Your task to perform on an android device: find which apps use the phone's location Image 0: 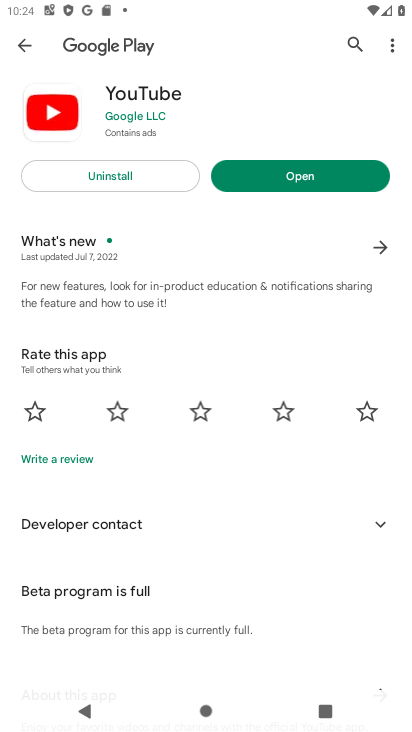
Step 0: press home button
Your task to perform on an android device: find which apps use the phone's location Image 1: 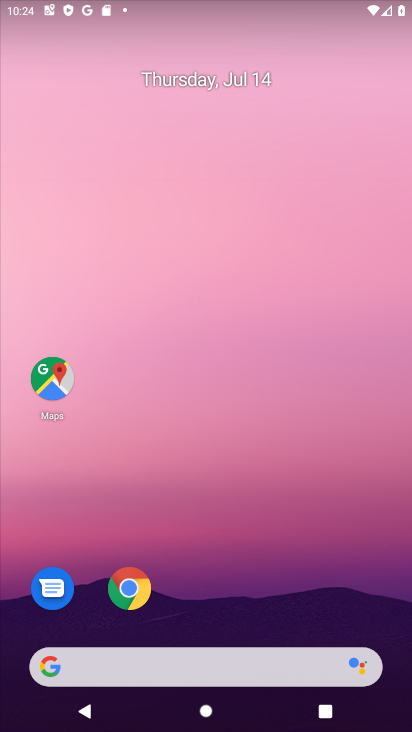
Step 1: drag from (123, 670) to (197, 92)
Your task to perform on an android device: find which apps use the phone's location Image 2: 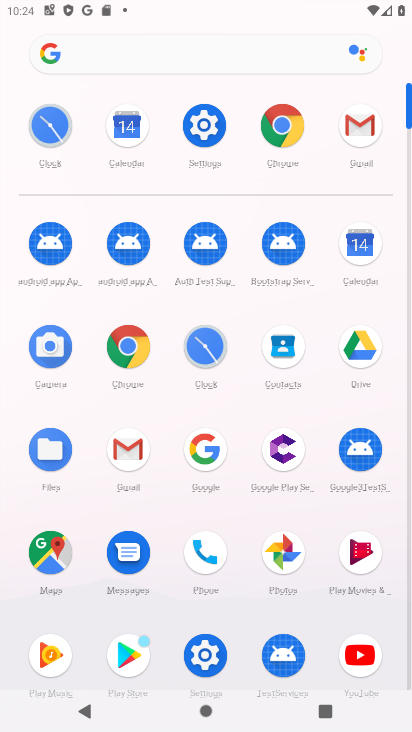
Step 2: click (209, 131)
Your task to perform on an android device: find which apps use the phone's location Image 3: 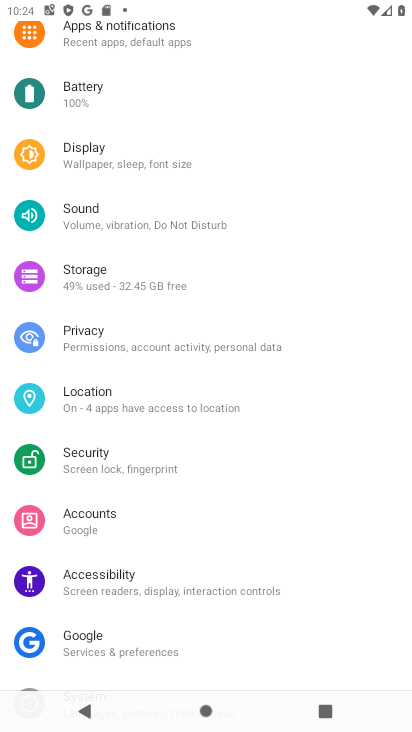
Step 3: click (88, 398)
Your task to perform on an android device: find which apps use the phone's location Image 4: 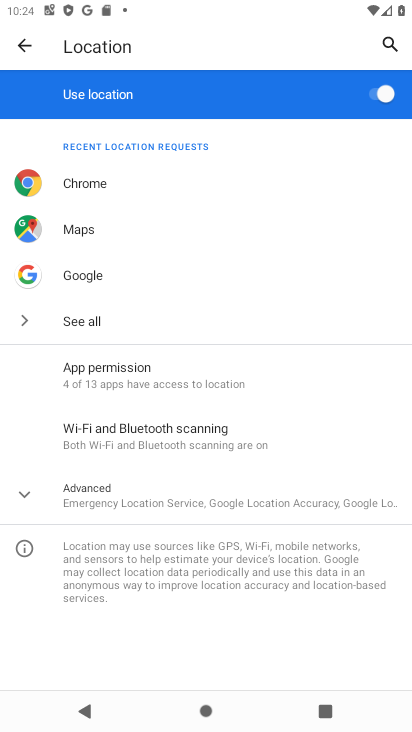
Step 4: click (114, 377)
Your task to perform on an android device: find which apps use the phone's location Image 5: 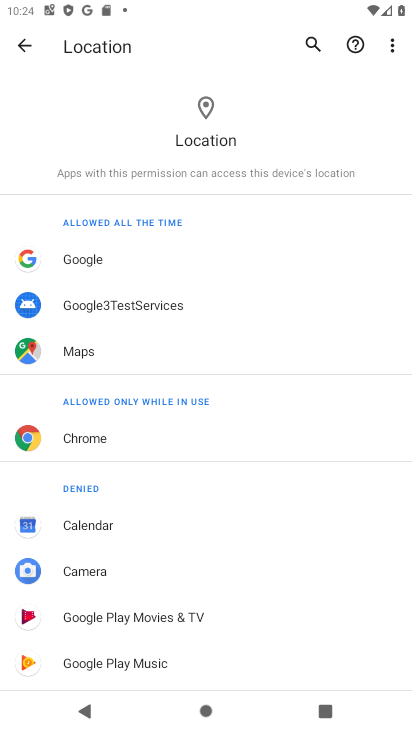
Step 5: drag from (235, 617) to (255, 352)
Your task to perform on an android device: find which apps use the phone's location Image 6: 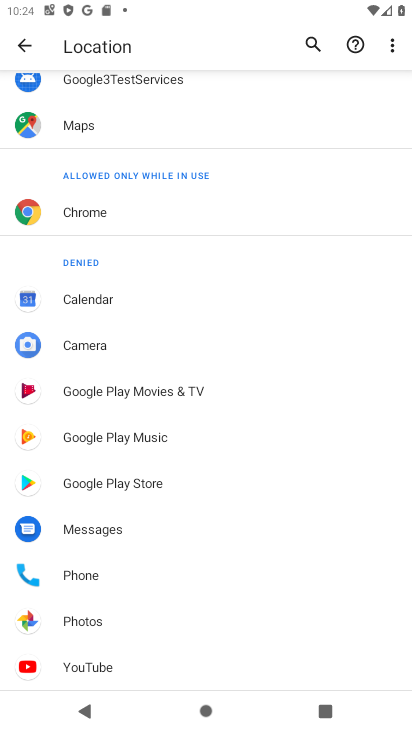
Step 6: click (88, 576)
Your task to perform on an android device: find which apps use the phone's location Image 7: 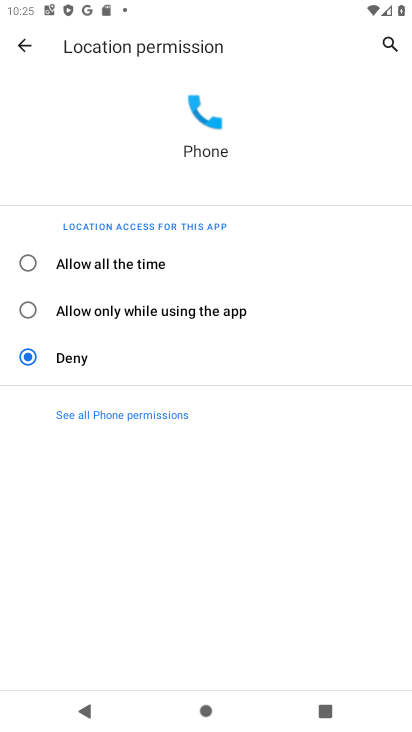
Step 7: task complete